Your task to perform on an android device: open sync settings in chrome Image 0: 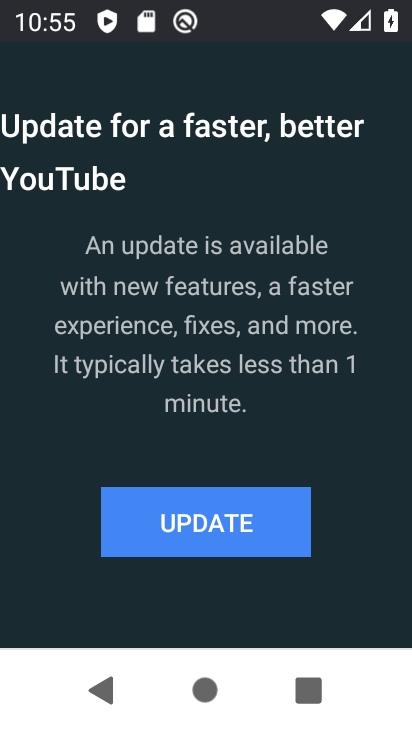
Step 0: press back button
Your task to perform on an android device: open sync settings in chrome Image 1: 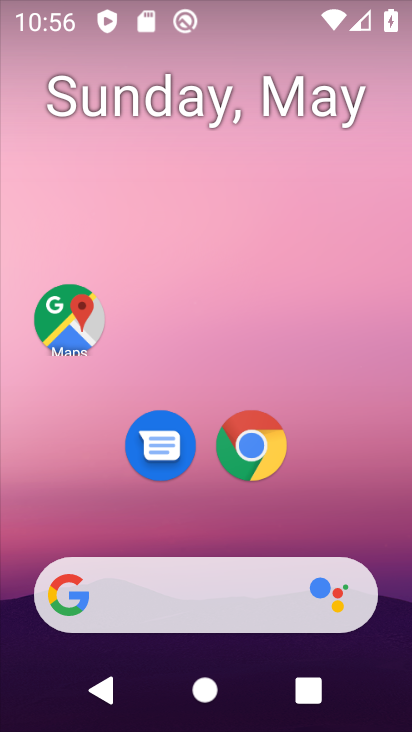
Step 1: click (257, 467)
Your task to perform on an android device: open sync settings in chrome Image 2: 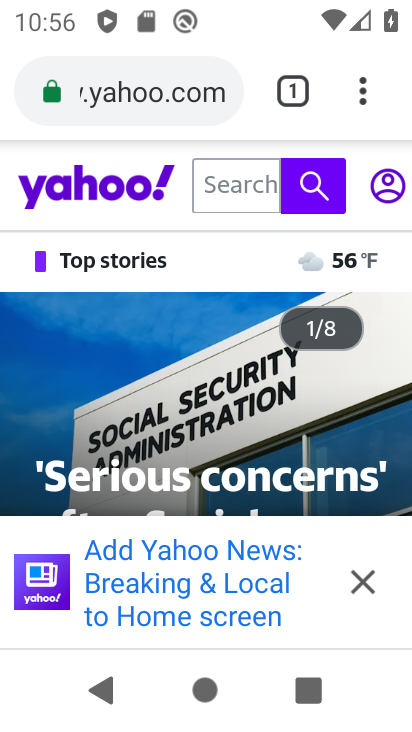
Step 2: click (358, 93)
Your task to perform on an android device: open sync settings in chrome Image 3: 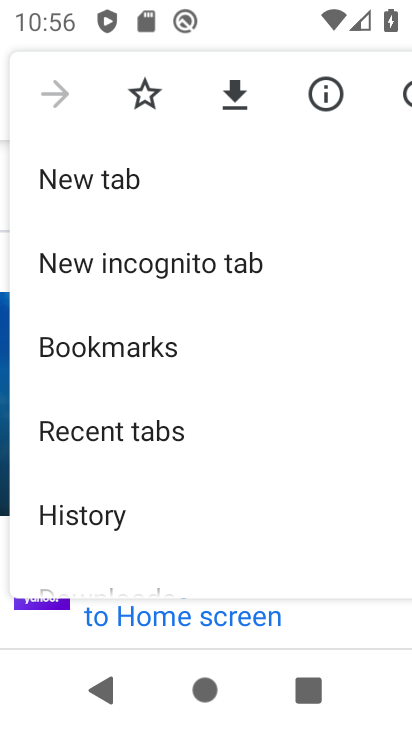
Step 3: drag from (245, 504) to (241, 184)
Your task to perform on an android device: open sync settings in chrome Image 4: 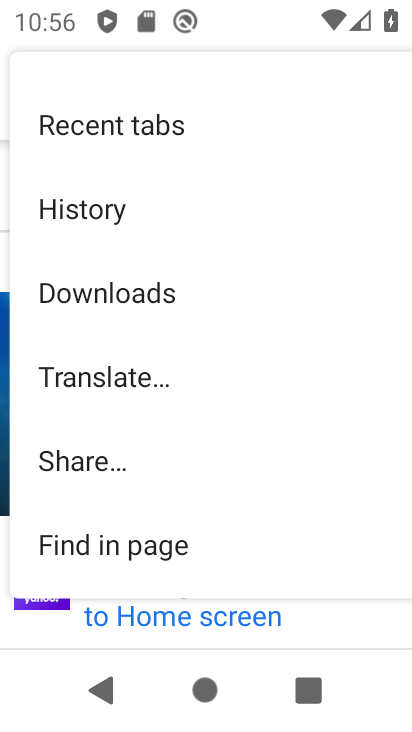
Step 4: drag from (236, 546) to (269, 182)
Your task to perform on an android device: open sync settings in chrome Image 5: 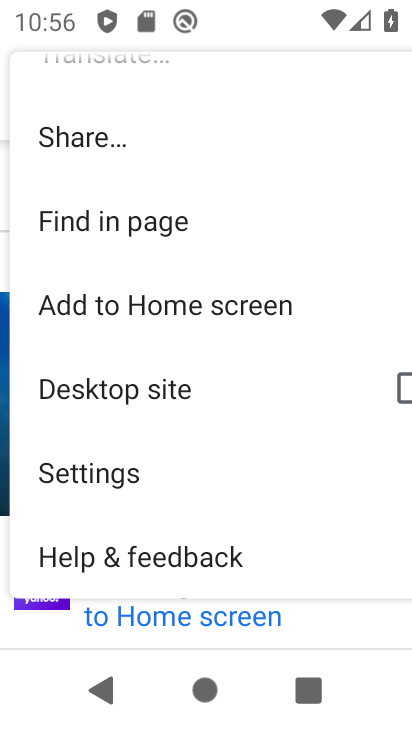
Step 5: click (174, 485)
Your task to perform on an android device: open sync settings in chrome Image 6: 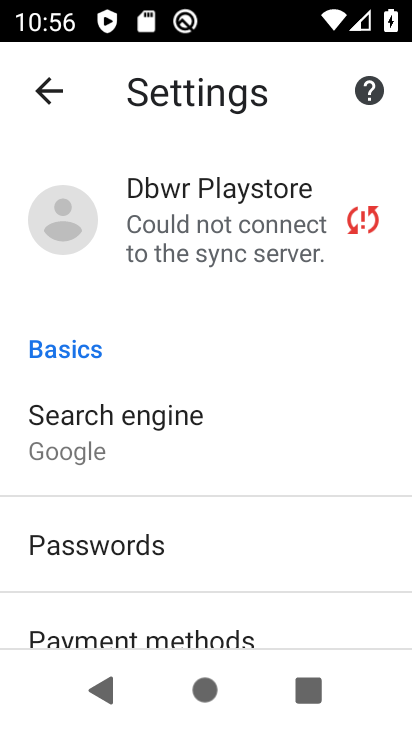
Step 6: drag from (236, 616) to (190, 282)
Your task to perform on an android device: open sync settings in chrome Image 7: 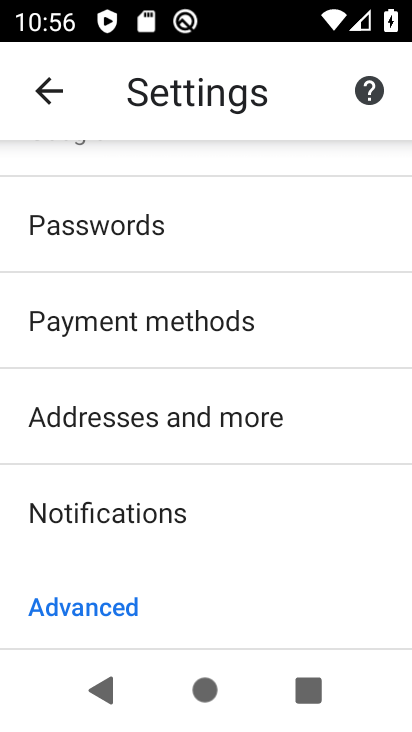
Step 7: drag from (235, 588) to (233, 236)
Your task to perform on an android device: open sync settings in chrome Image 8: 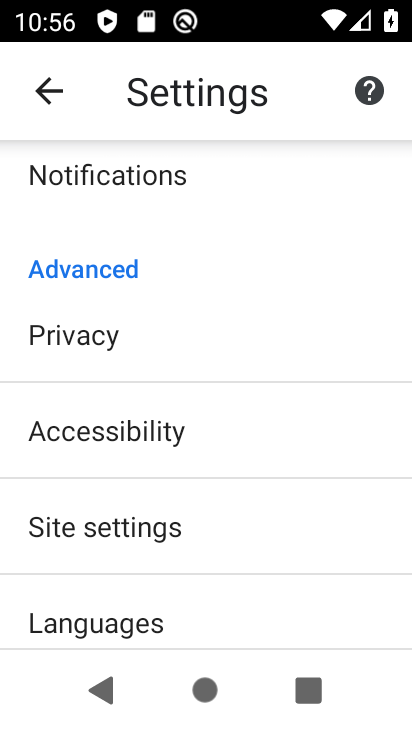
Step 8: click (198, 530)
Your task to perform on an android device: open sync settings in chrome Image 9: 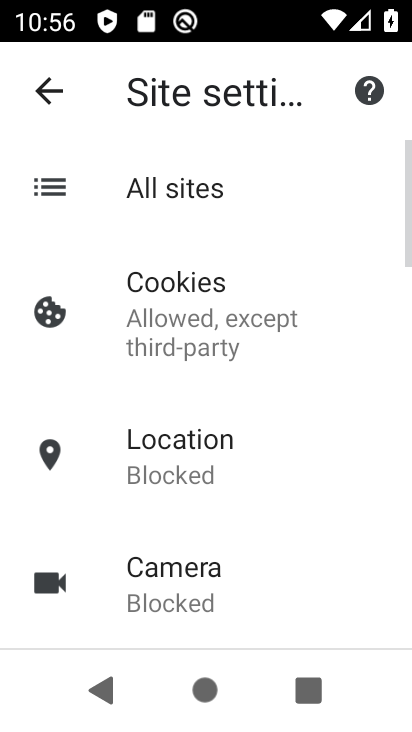
Step 9: drag from (253, 506) to (253, 342)
Your task to perform on an android device: open sync settings in chrome Image 10: 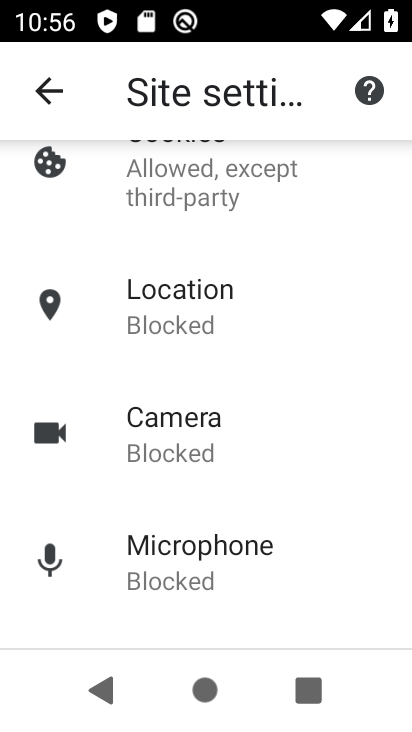
Step 10: drag from (263, 566) to (211, 206)
Your task to perform on an android device: open sync settings in chrome Image 11: 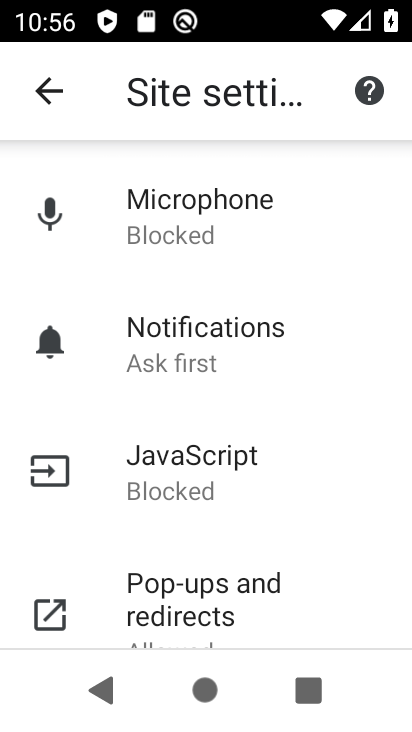
Step 11: drag from (250, 561) to (227, 261)
Your task to perform on an android device: open sync settings in chrome Image 12: 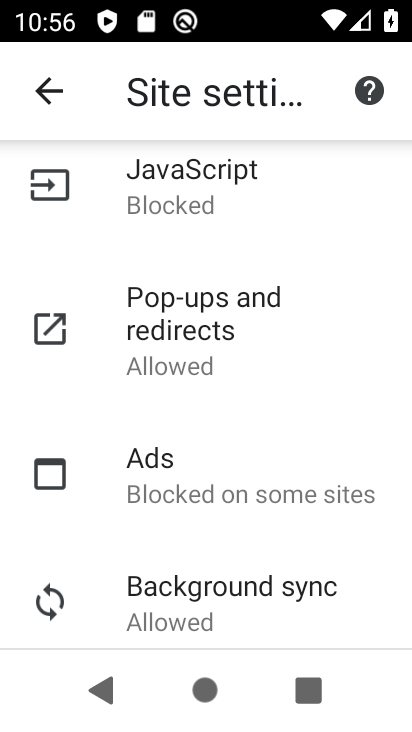
Step 12: click (250, 577)
Your task to perform on an android device: open sync settings in chrome Image 13: 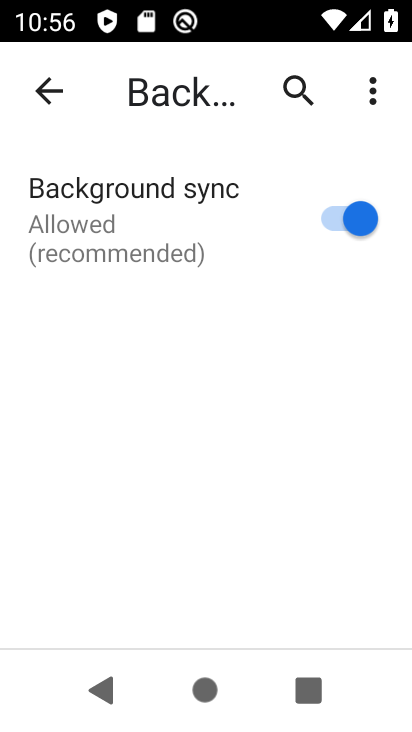
Step 13: task complete